Your task to perform on an android device: turn off improve location accuracy Image 0: 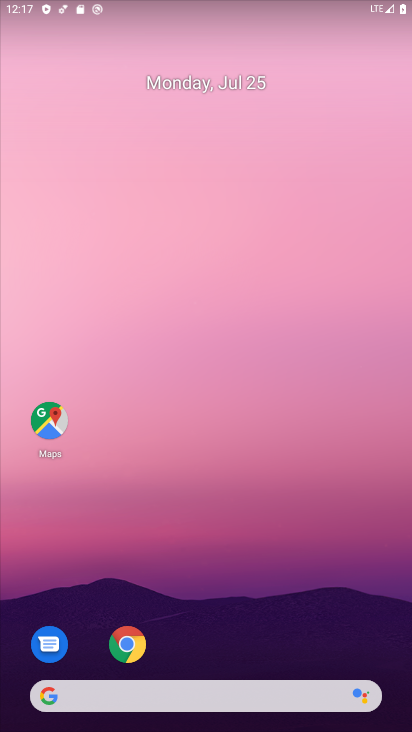
Step 0: drag from (244, 548) to (266, 141)
Your task to perform on an android device: turn off improve location accuracy Image 1: 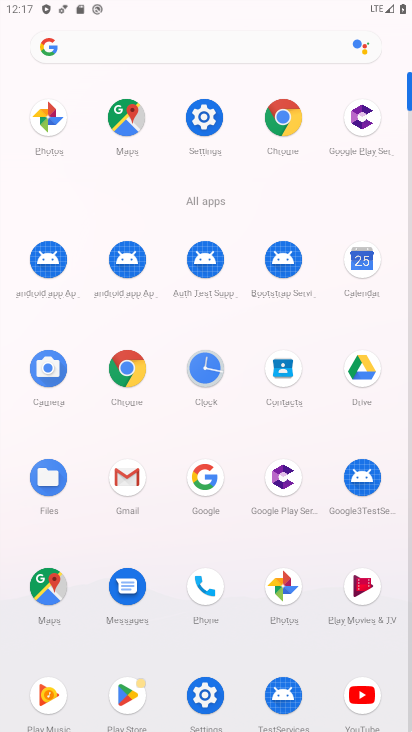
Step 1: click (205, 124)
Your task to perform on an android device: turn off improve location accuracy Image 2: 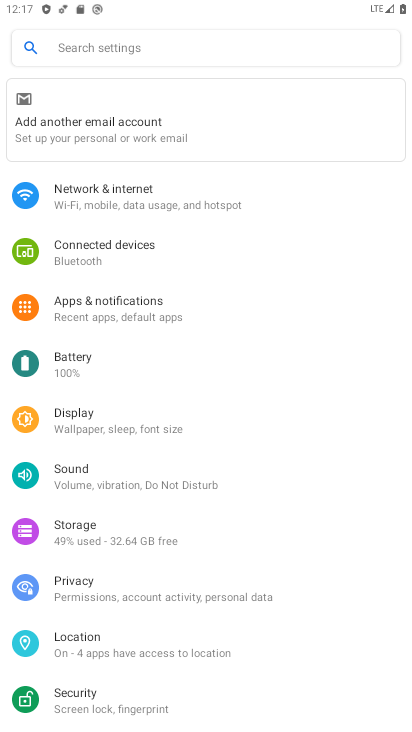
Step 2: click (87, 644)
Your task to perform on an android device: turn off improve location accuracy Image 3: 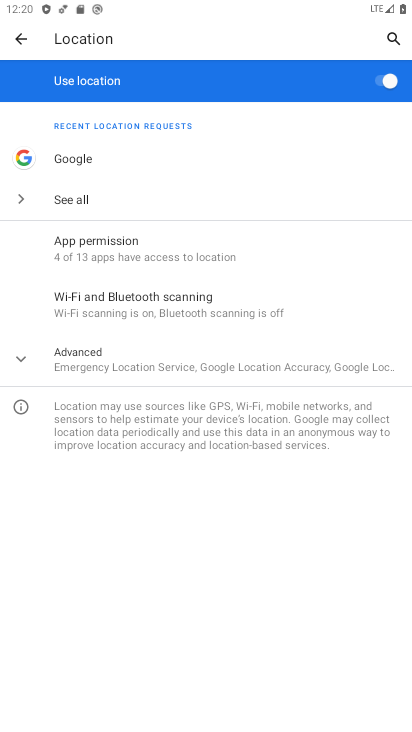
Step 3: click (379, 74)
Your task to perform on an android device: turn off improve location accuracy Image 4: 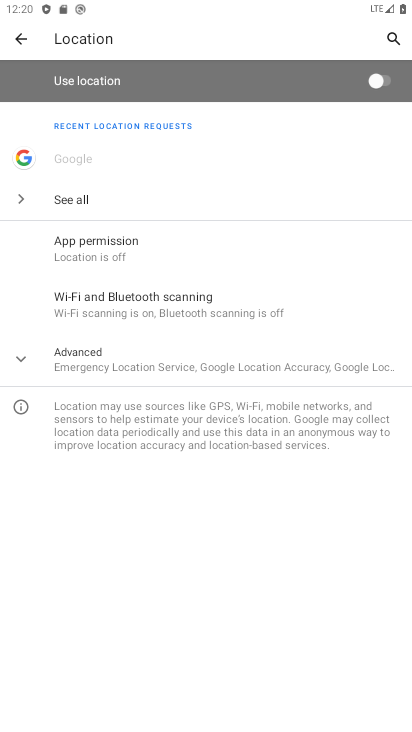
Step 4: click (392, 78)
Your task to perform on an android device: turn off improve location accuracy Image 5: 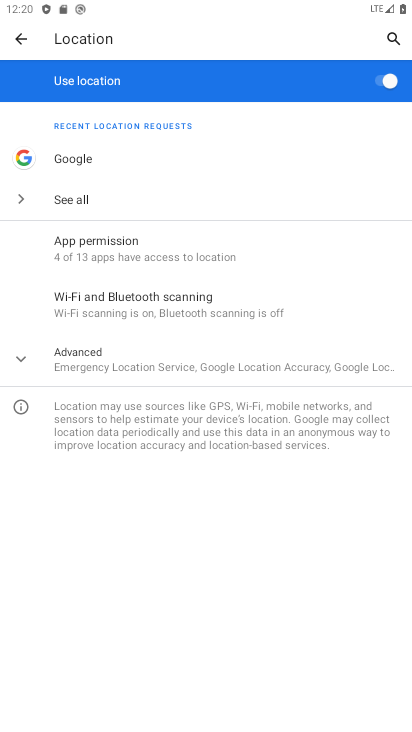
Step 5: click (128, 359)
Your task to perform on an android device: turn off improve location accuracy Image 6: 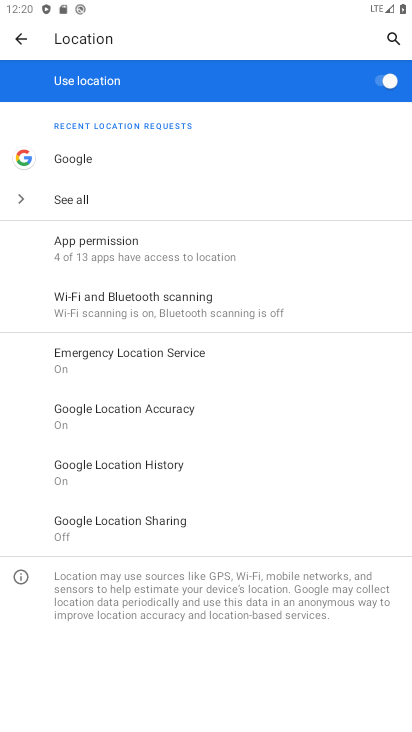
Step 6: click (113, 411)
Your task to perform on an android device: turn off improve location accuracy Image 7: 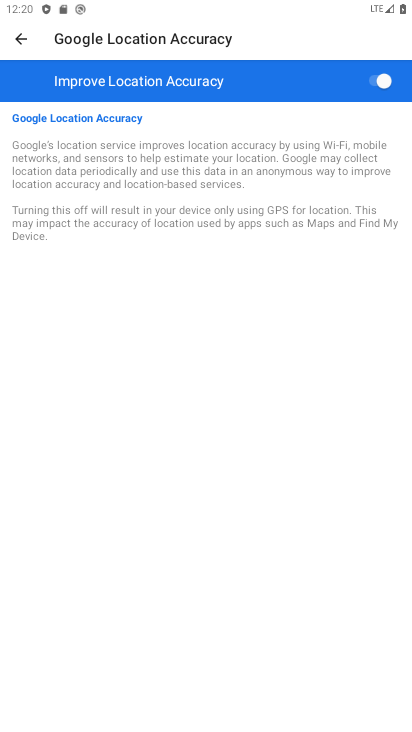
Step 7: click (372, 76)
Your task to perform on an android device: turn off improve location accuracy Image 8: 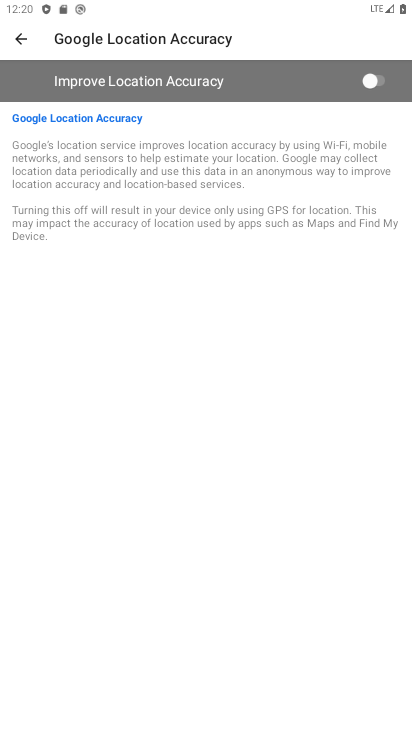
Step 8: task complete